Your task to perform on an android device: Go to Google Image 0: 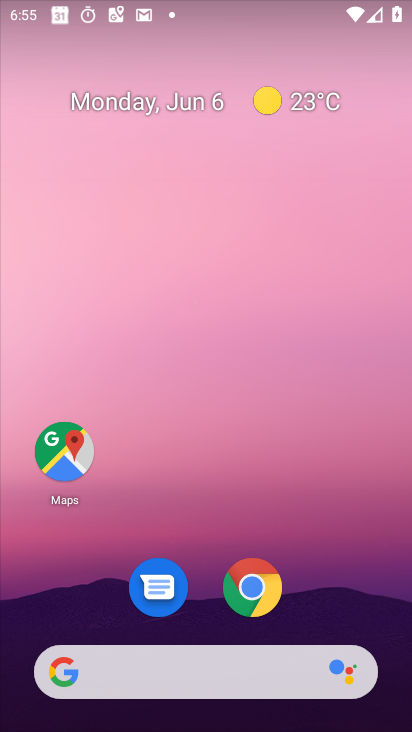
Step 0: drag from (383, 662) to (219, 45)
Your task to perform on an android device: Go to Google Image 1: 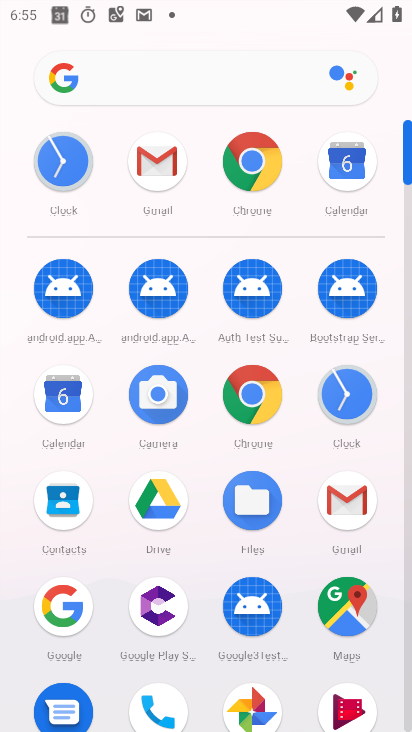
Step 1: click (58, 613)
Your task to perform on an android device: Go to Google Image 2: 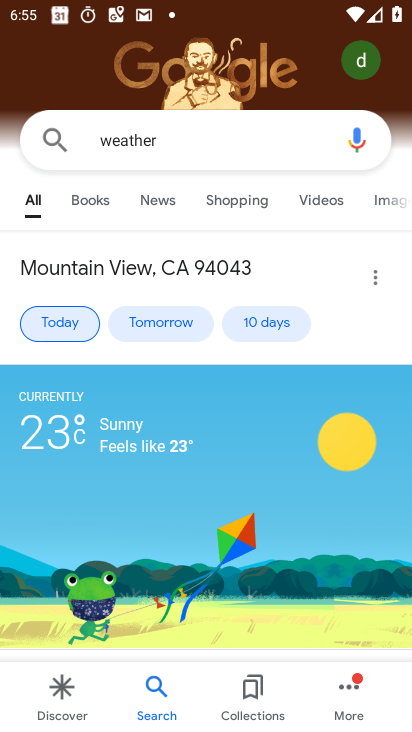
Step 2: task complete